Your task to perform on an android device: delete the emails in spam in the gmail app Image 0: 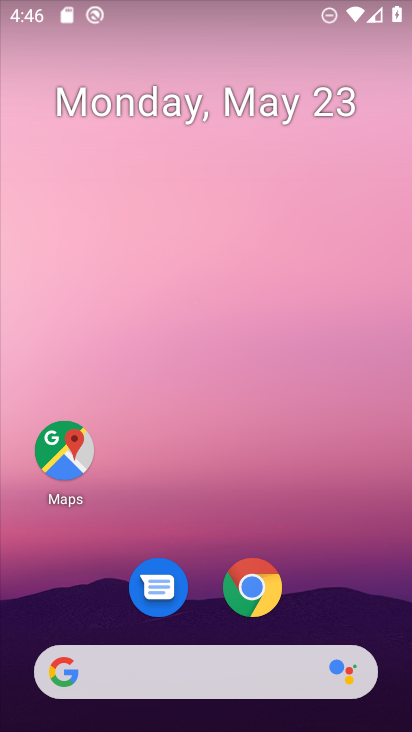
Step 0: drag from (200, 622) to (255, 19)
Your task to perform on an android device: delete the emails in spam in the gmail app Image 1: 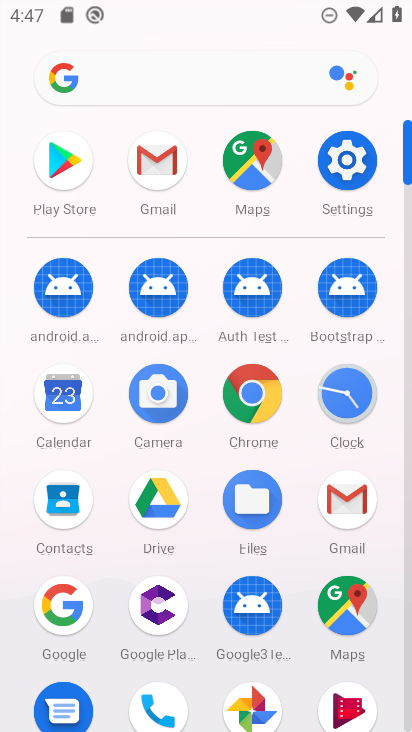
Step 1: click (339, 503)
Your task to perform on an android device: delete the emails in spam in the gmail app Image 2: 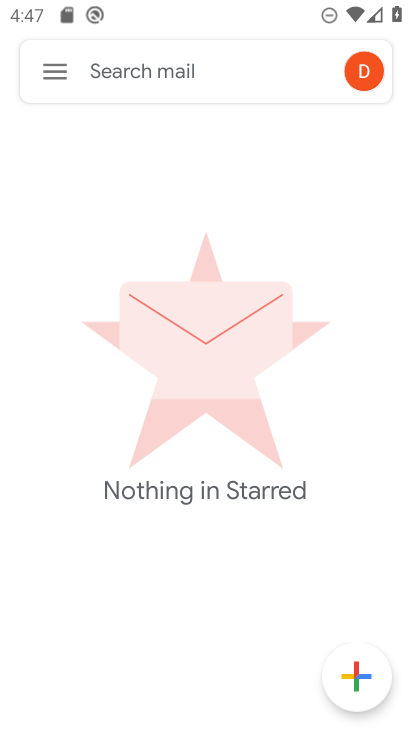
Step 2: click (50, 79)
Your task to perform on an android device: delete the emails in spam in the gmail app Image 3: 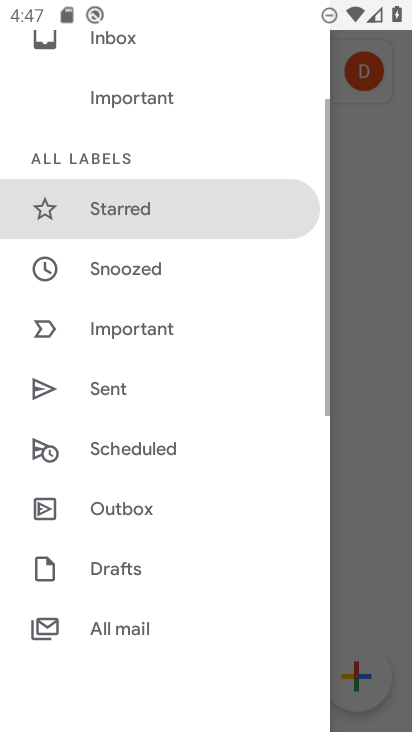
Step 3: drag from (119, 603) to (159, 301)
Your task to perform on an android device: delete the emails in spam in the gmail app Image 4: 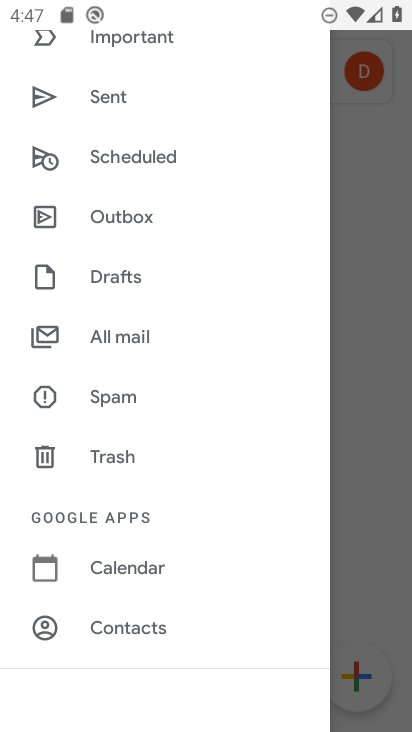
Step 4: drag from (121, 573) to (180, 172)
Your task to perform on an android device: delete the emails in spam in the gmail app Image 5: 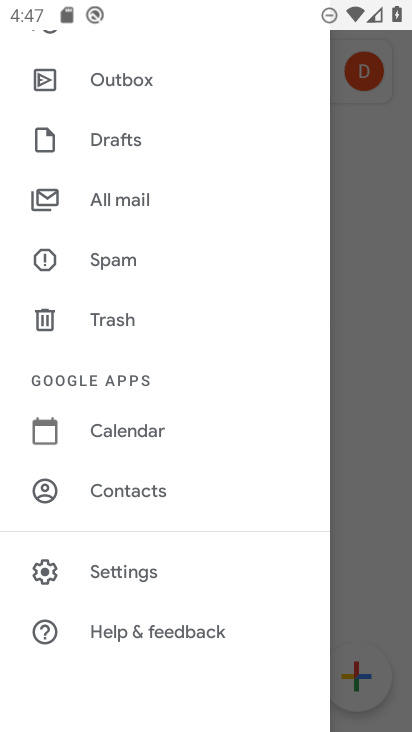
Step 5: click (108, 262)
Your task to perform on an android device: delete the emails in spam in the gmail app Image 6: 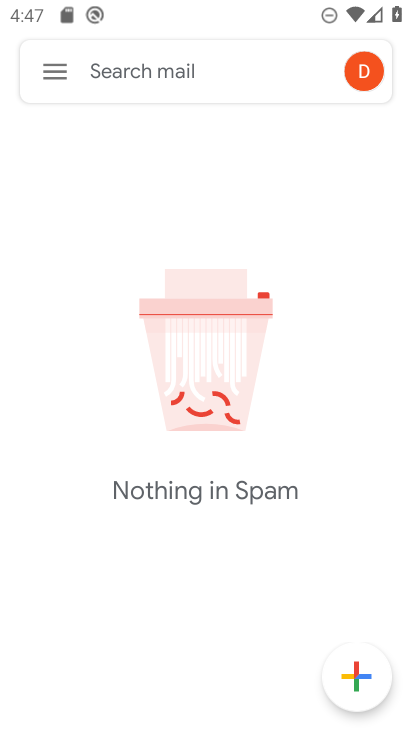
Step 6: task complete